Your task to perform on an android device: Go to Yahoo.com Image 0: 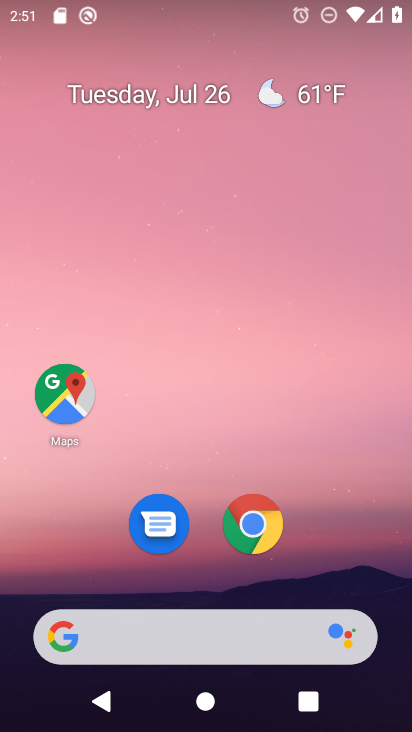
Step 0: click (249, 534)
Your task to perform on an android device: Go to Yahoo.com Image 1: 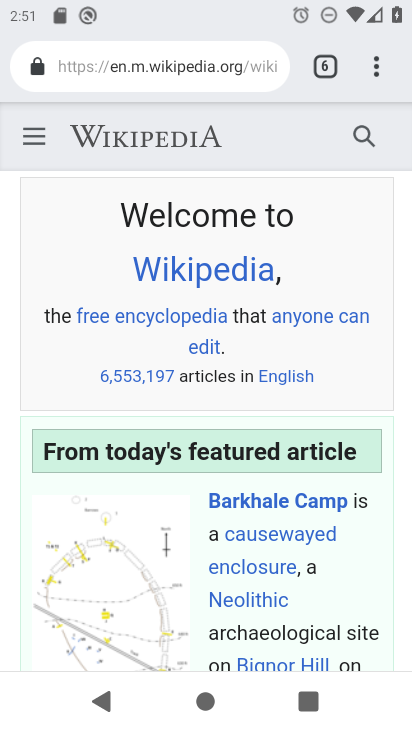
Step 1: drag from (372, 81) to (200, 131)
Your task to perform on an android device: Go to Yahoo.com Image 2: 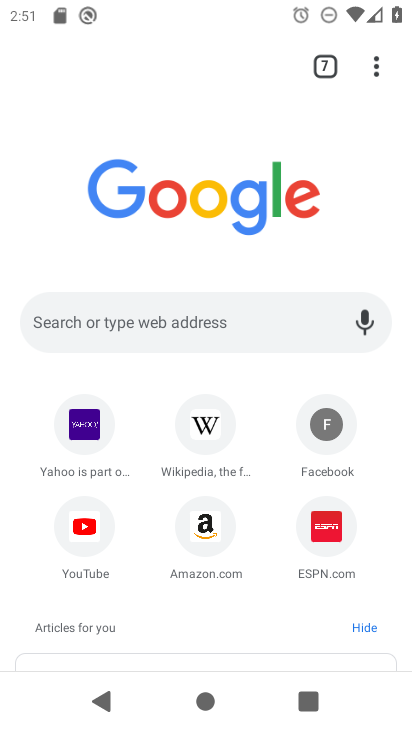
Step 2: click (85, 425)
Your task to perform on an android device: Go to Yahoo.com Image 3: 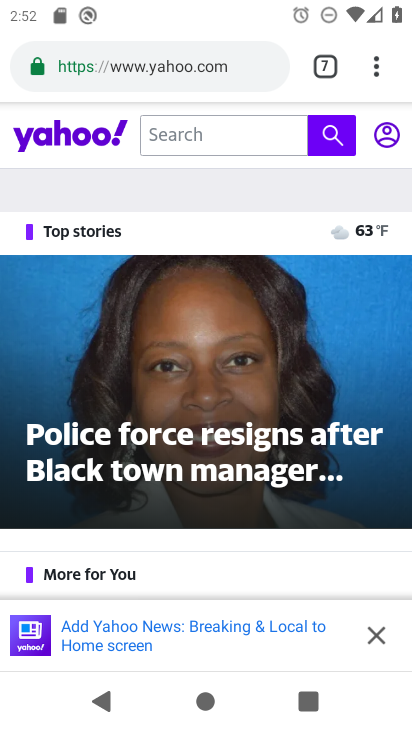
Step 3: task complete